Your task to perform on an android device: Open the calendar and show me this week's events? Image 0: 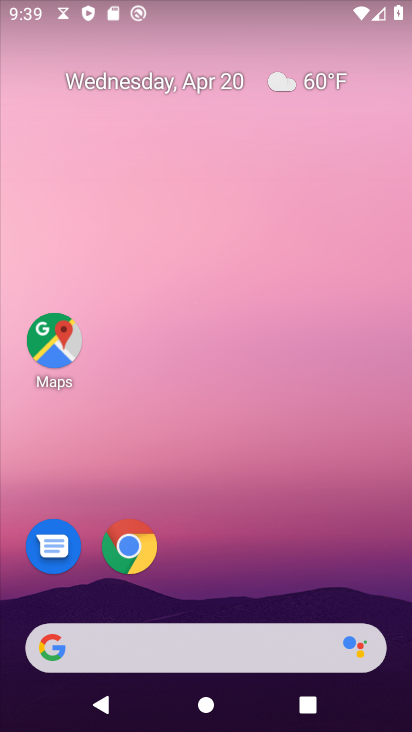
Step 0: drag from (231, 420) to (231, 25)
Your task to perform on an android device: Open the calendar and show me this week's events? Image 1: 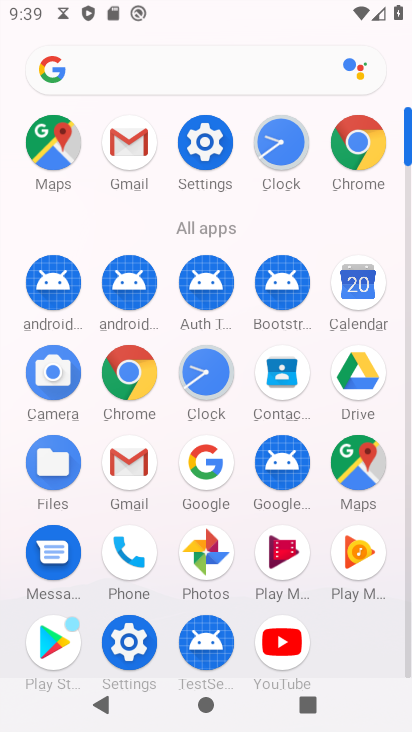
Step 1: click (362, 288)
Your task to perform on an android device: Open the calendar and show me this week's events? Image 2: 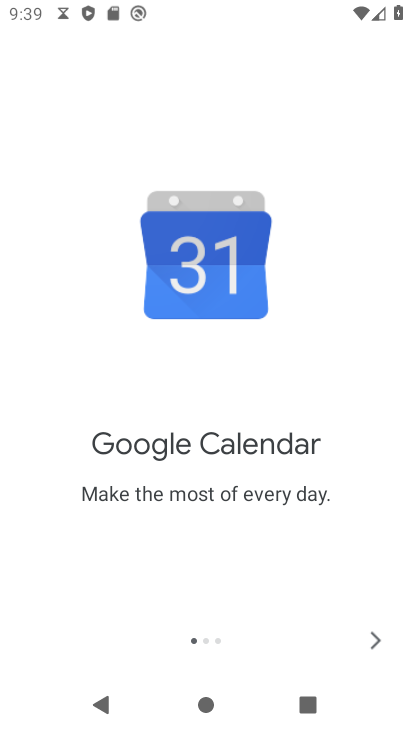
Step 2: click (374, 639)
Your task to perform on an android device: Open the calendar and show me this week's events? Image 3: 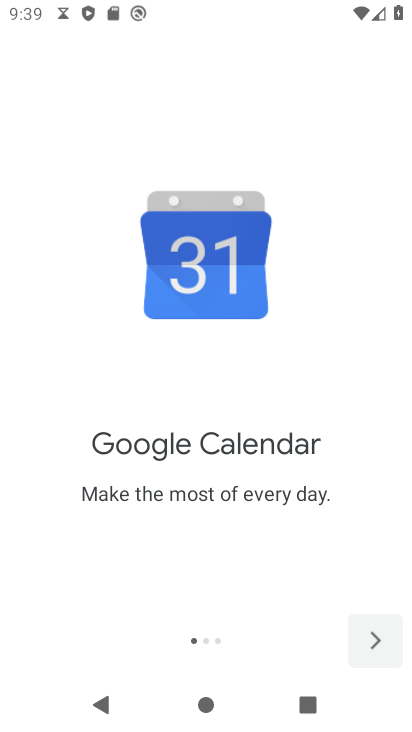
Step 3: click (374, 639)
Your task to perform on an android device: Open the calendar and show me this week's events? Image 4: 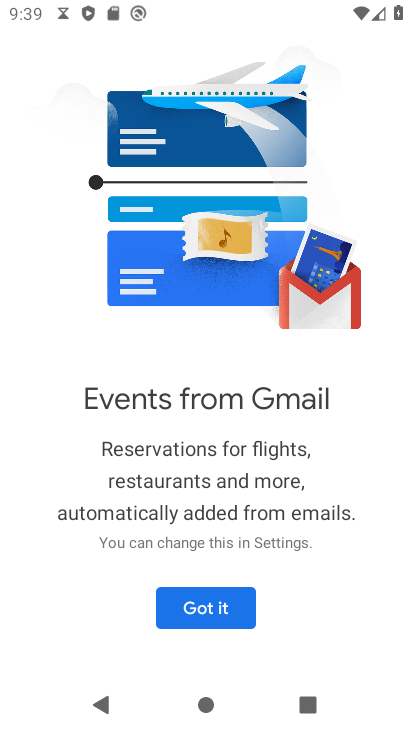
Step 4: click (223, 612)
Your task to perform on an android device: Open the calendar and show me this week's events? Image 5: 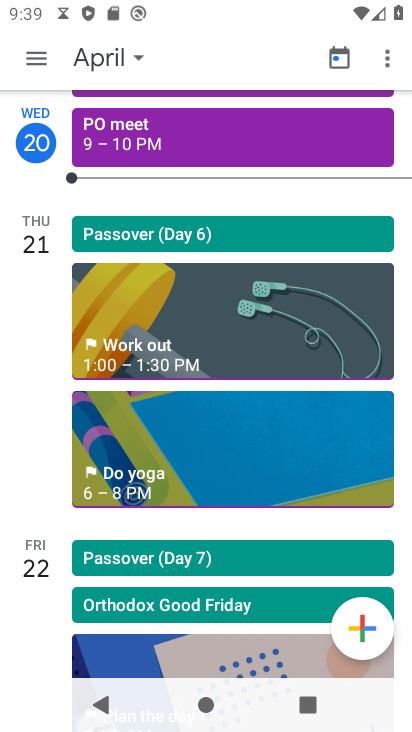
Step 5: click (37, 55)
Your task to perform on an android device: Open the calendar and show me this week's events? Image 6: 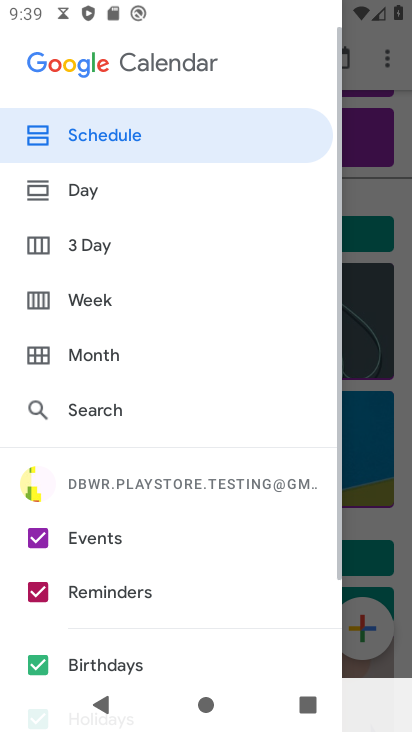
Step 6: click (106, 300)
Your task to perform on an android device: Open the calendar and show me this week's events? Image 7: 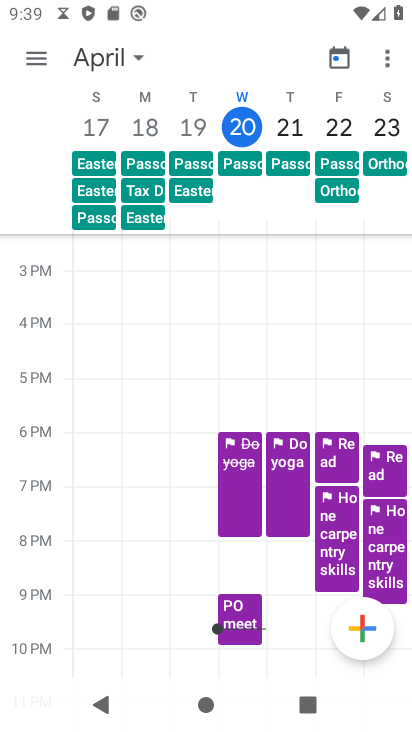
Step 7: task complete